Your task to perform on an android device: What's on my calendar tomorrow? Image 0: 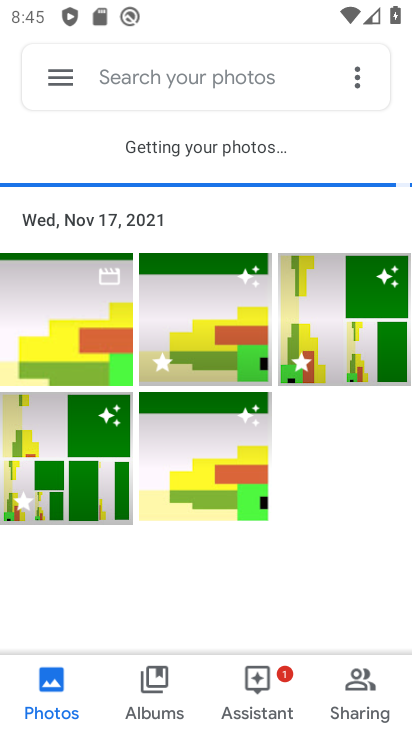
Step 0: press home button
Your task to perform on an android device: What's on my calendar tomorrow? Image 1: 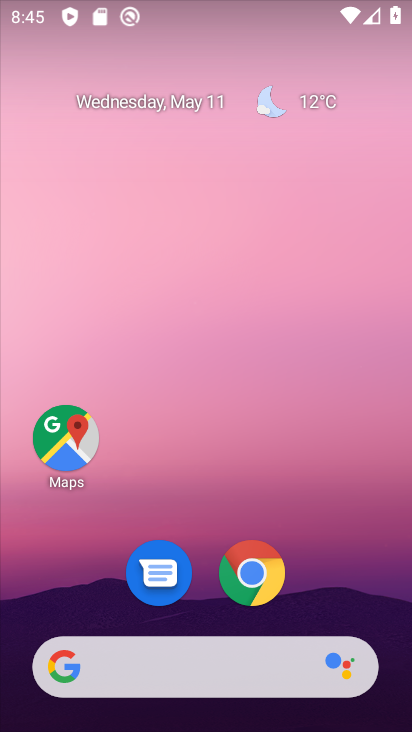
Step 1: drag from (319, 617) to (301, 73)
Your task to perform on an android device: What's on my calendar tomorrow? Image 2: 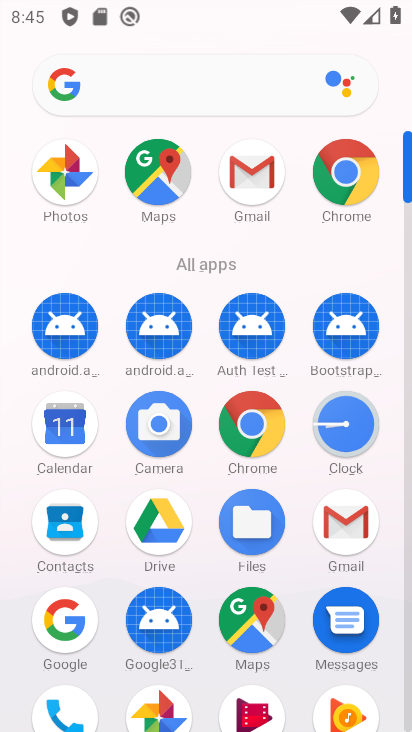
Step 2: click (55, 427)
Your task to perform on an android device: What's on my calendar tomorrow? Image 3: 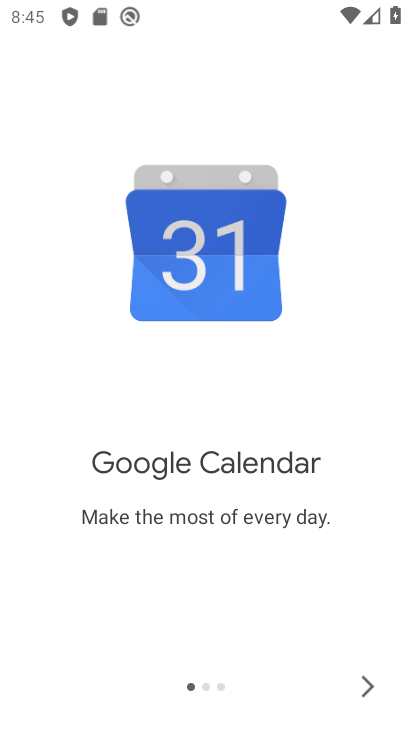
Step 3: click (372, 679)
Your task to perform on an android device: What's on my calendar tomorrow? Image 4: 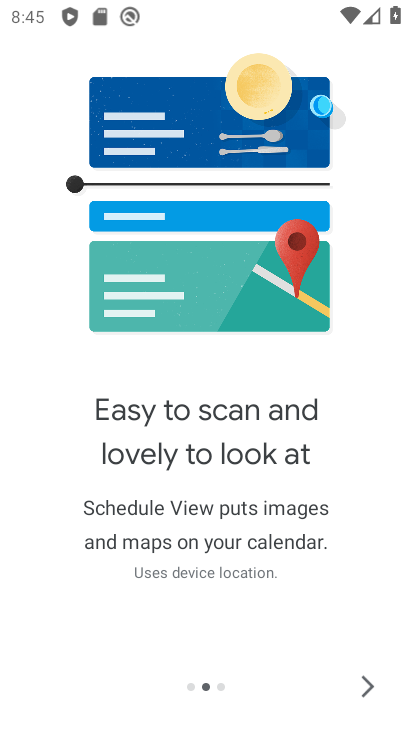
Step 4: click (374, 678)
Your task to perform on an android device: What's on my calendar tomorrow? Image 5: 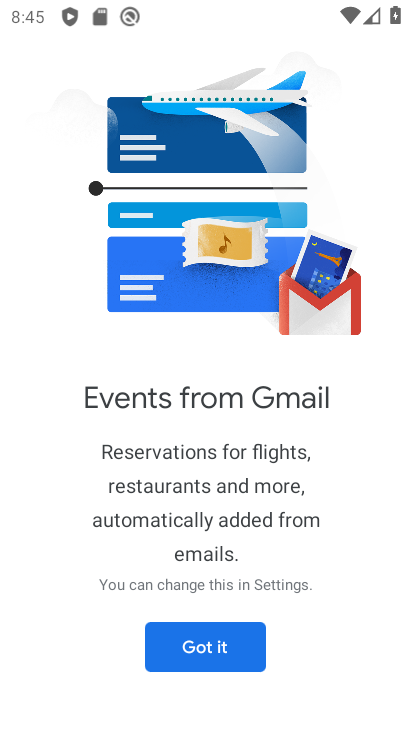
Step 5: click (374, 678)
Your task to perform on an android device: What's on my calendar tomorrow? Image 6: 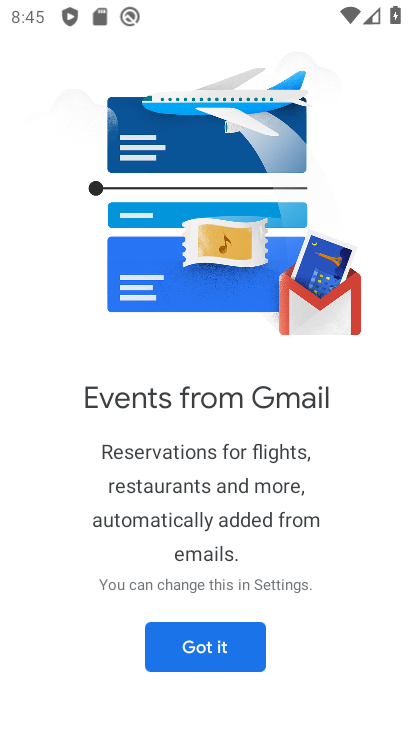
Step 6: click (227, 652)
Your task to perform on an android device: What's on my calendar tomorrow? Image 7: 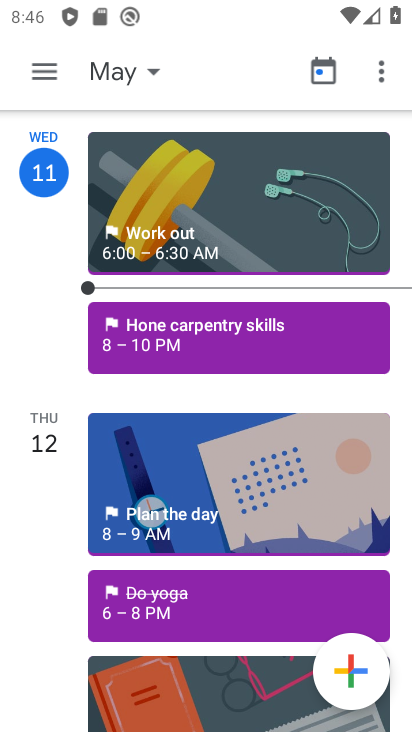
Step 7: click (149, 73)
Your task to perform on an android device: What's on my calendar tomorrow? Image 8: 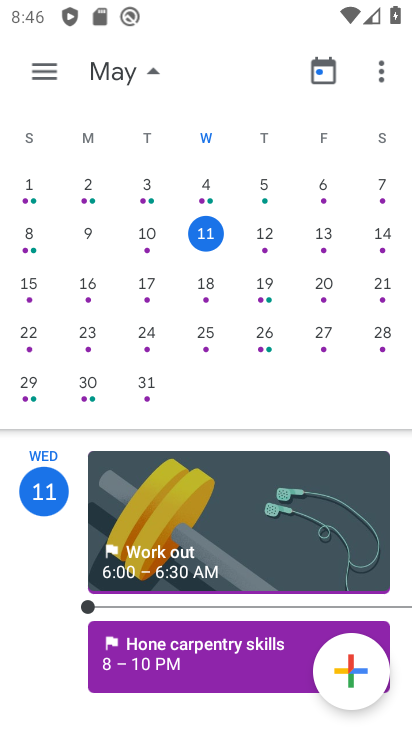
Step 8: click (263, 228)
Your task to perform on an android device: What's on my calendar tomorrow? Image 9: 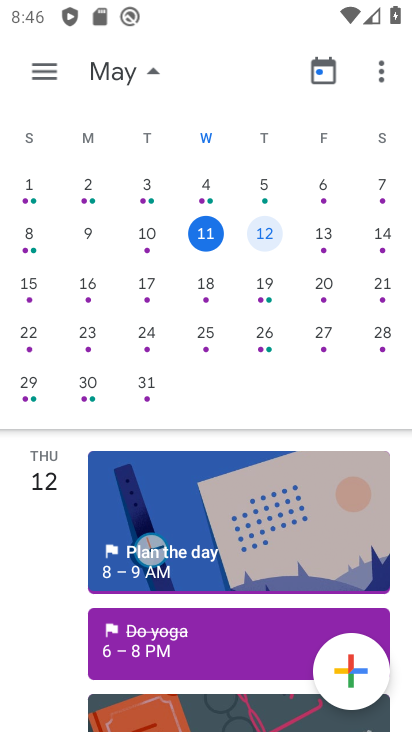
Step 9: click (321, 228)
Your task to perform on an android device: What's on my calendar tomorrow? Image 10: 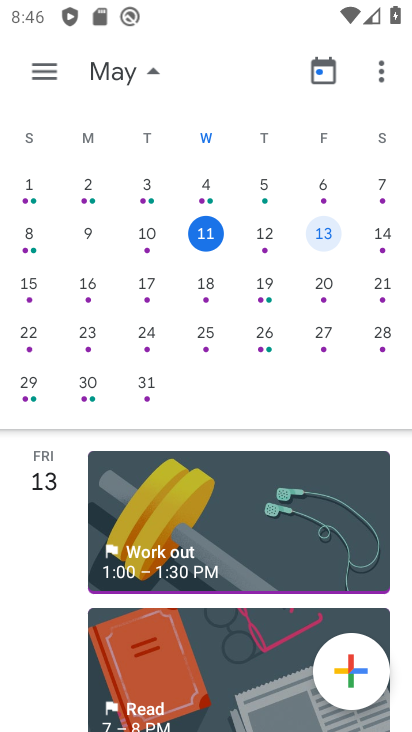
Step 10: task complete